Your task to perform on an android device: change alarm snooze length Image 0: 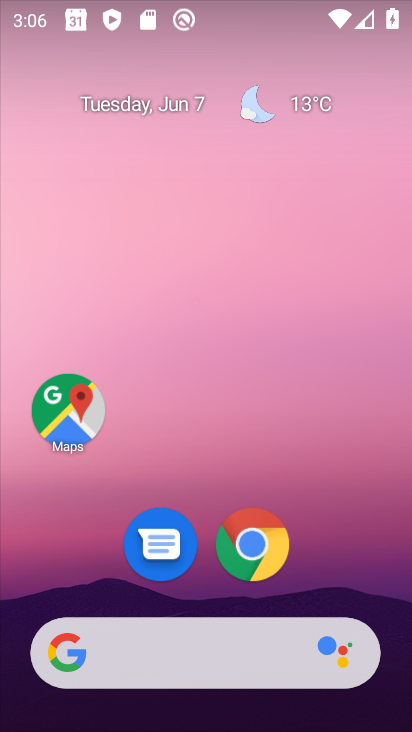
Step 0: drag from (212, 592) to (289, 66)
Your task to perform on an android device: change alarm snooze length Image 1: 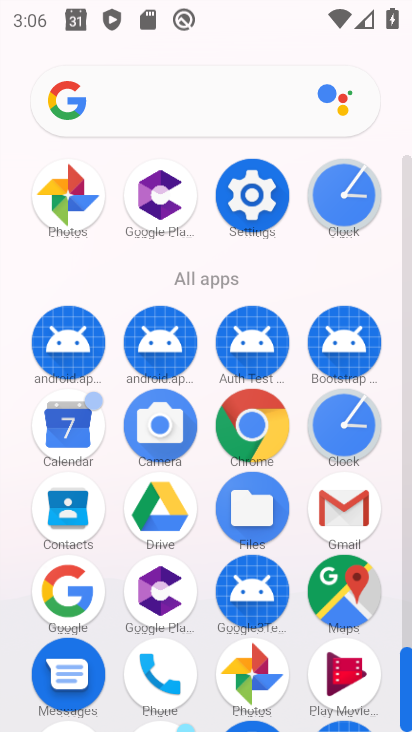
Step 1: click (342, 186)
Your task to perform on an android device: change alarm snooze length Image 2: 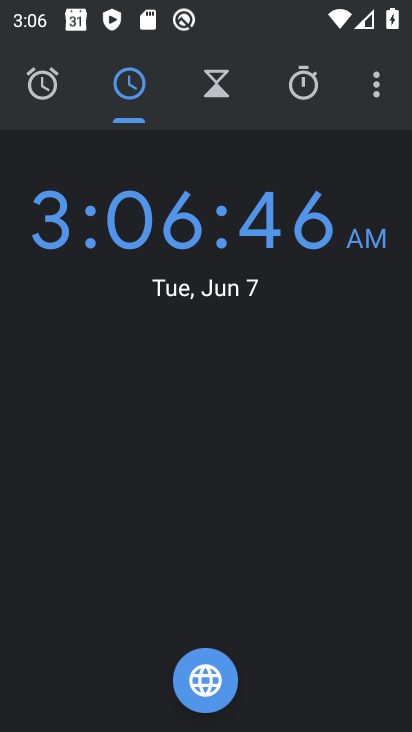
Step 2: click (374, 81)
Your task to perform on an android device: change alarm snooze length Image 3: 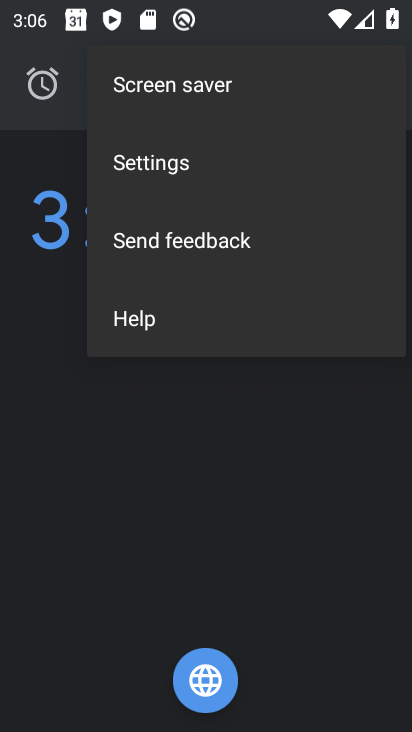
Step 3: click (212, 158)
Your task to perform on an android device: change alarm snooze length Image 4: 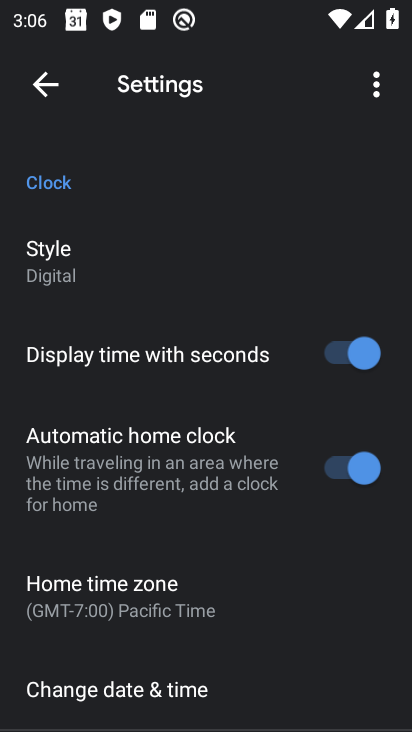
Step 4: drag from (241, 661) to (234, 91)
Your task to perform on an android device: change alarm snooze length Image 5: 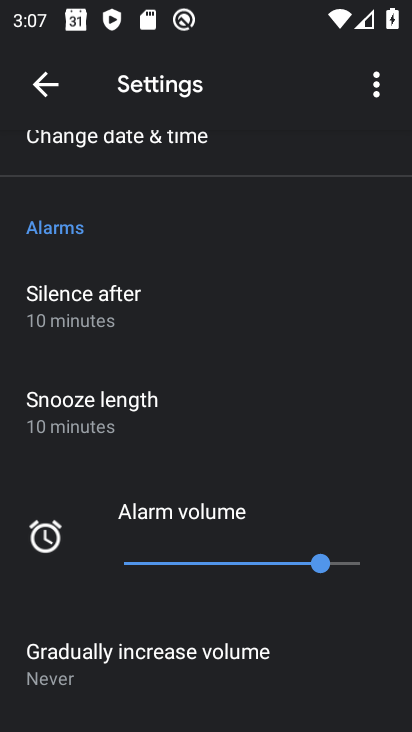
Step 5: click (161, 420)
Your task to perform on an android device: change alarm snooze length Image 6: 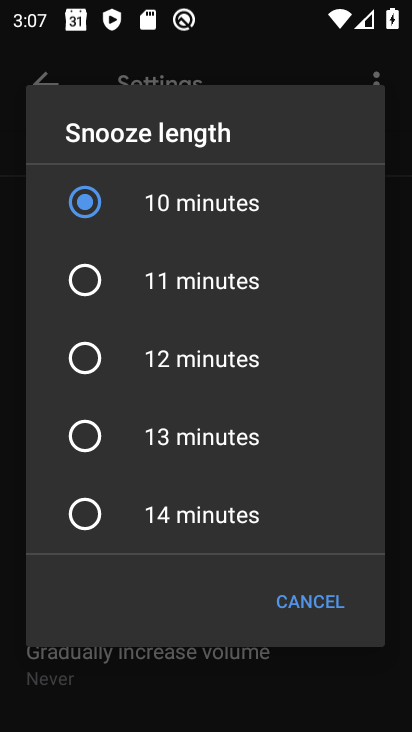
Step 6: drag from (123, 237) to (195, 575)
Your task to perform on an android device: change alarm snooze length Image 7: 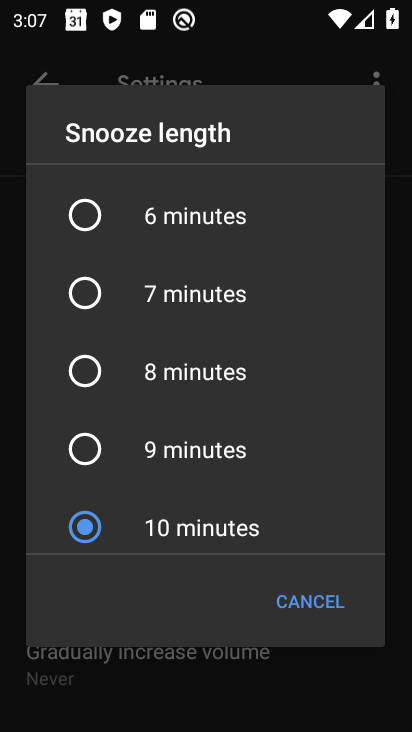
Step 7: click (82, 209)
Your task to perform on an android device: change alarm snooze length Image 8: 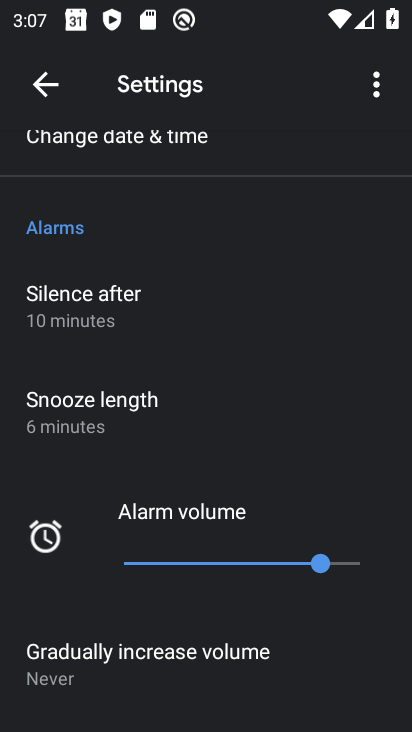
Step 8: task complete